Your task to perform on an android device: open sync settings in chrome Image 0: 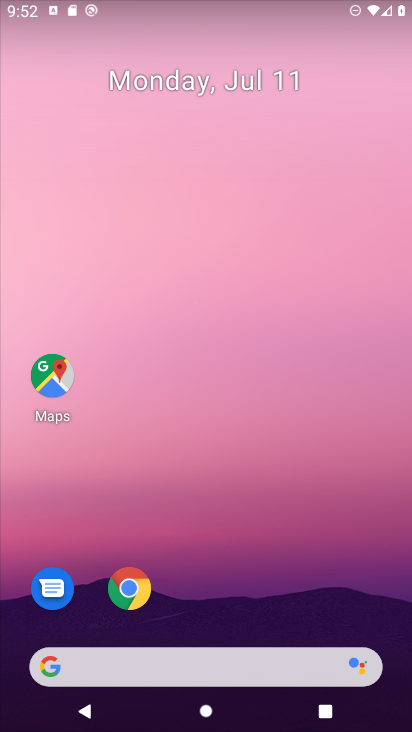
Step 0: press home button
Your task to perform on an android device: open sync settings in chrome Image 1: 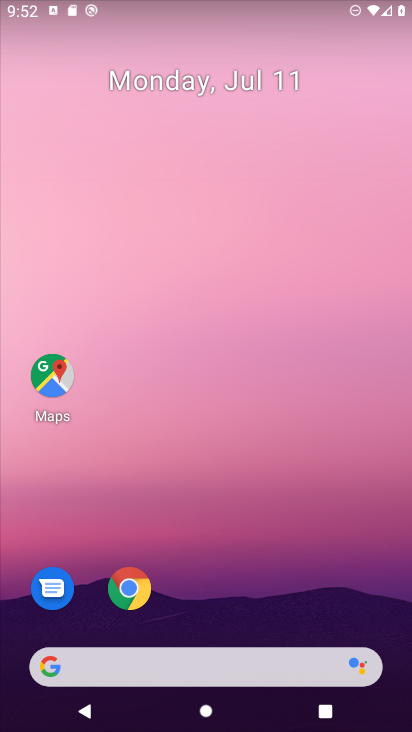
Step 1: drag from (391, 662) to (220, 50)
Your task to perform on an android device: open sync settings in chrome Image 2: 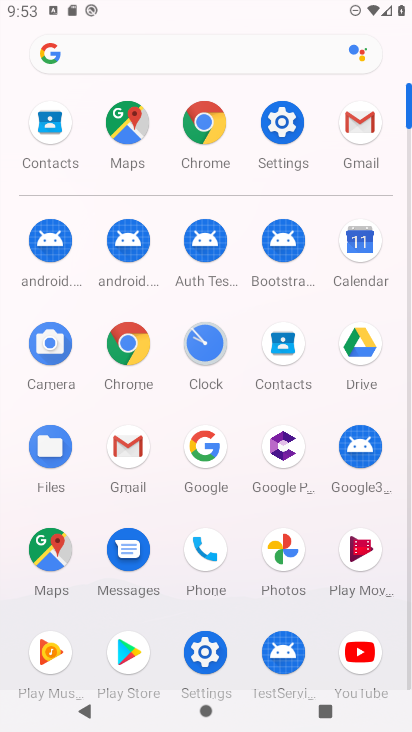
Step 2: click (137, 348)
Your task to perform on an android device: open sync settings in chrome Image 3: 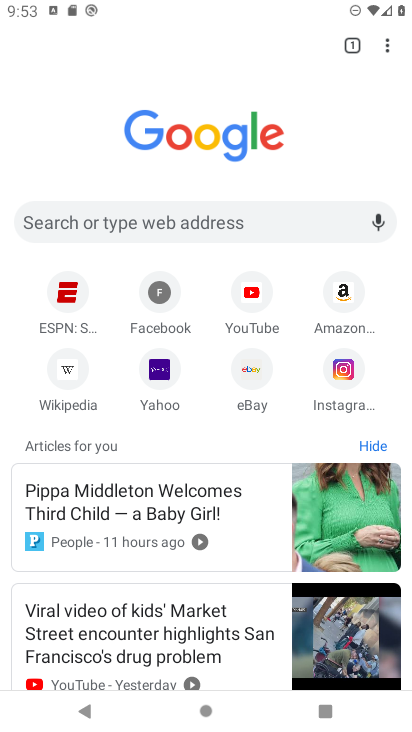
Step 3: click (386, 42)
Your task to perform on an android device: open sync settings in chrome Image 4: 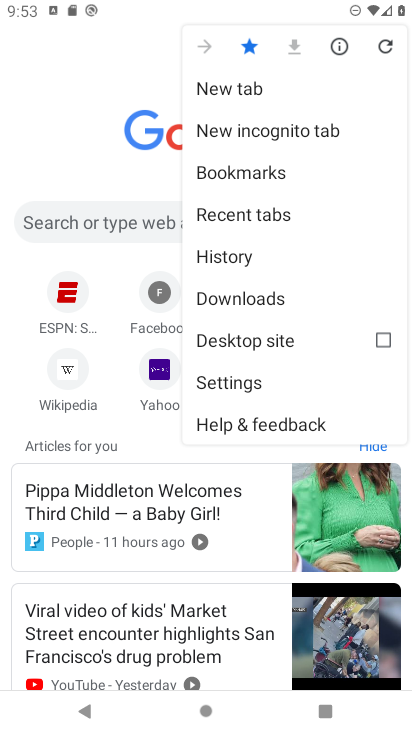
Step 4: click (247, 381)
Your task to perform on an android device: open sync settings in chrome Image 5: 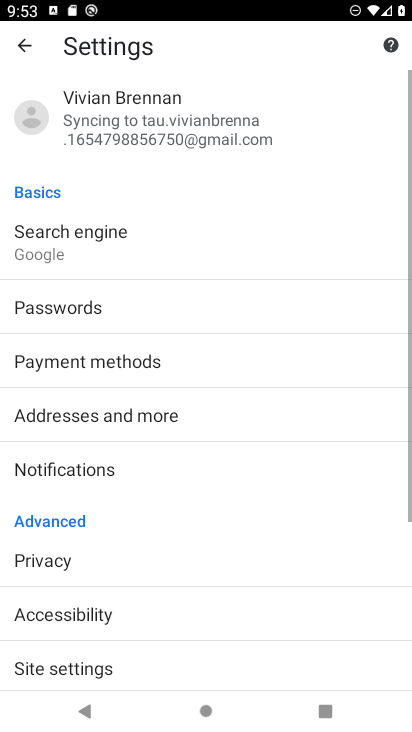
Step 5: drag from (114, 624) to (88, 219)
Your task to perform on an android device: open sync settings in chrome Image 6: 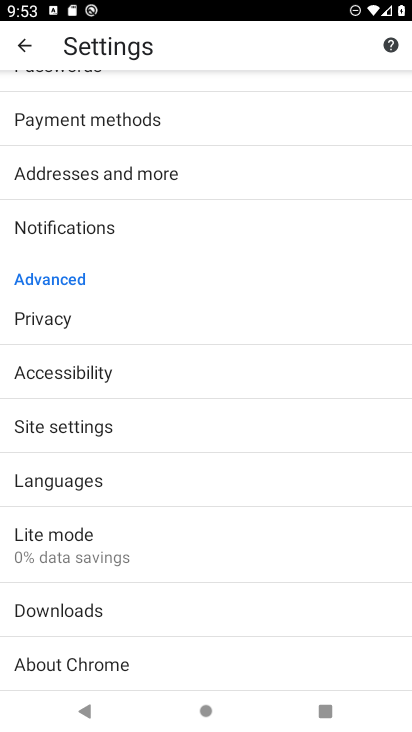
Step 6: click (82, 431)
Your task to perform on an android device: open sync settings in chrome Image 7: 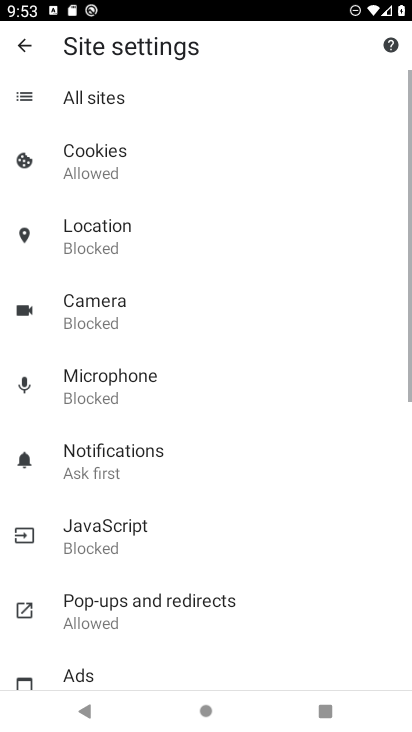
Step 7: drag from (130, 659) to (101, 364)
Your task to perform on an android device: open sync settings in chrome Image 8: 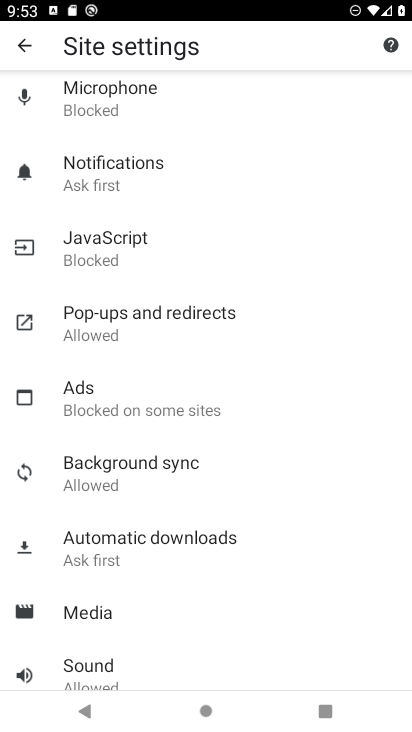
Step 8: click (134, 454)
Your task to perform on an android device: open sync settings in chrome Image 9: 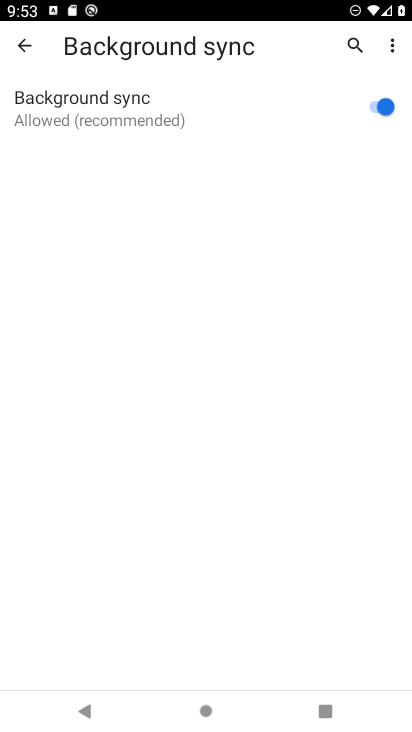
Step 9: task complete